Your task to perform on an android device: Open Youtube and go to the subscriptions tab Image 0: 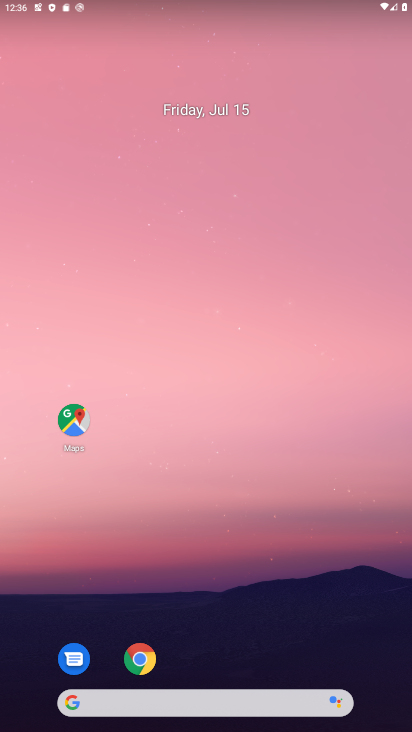
Step 0: drag from (185, 655) to (187, 256)
Your task to perform on an android device: Open Youtube and go to the subscriptions tab Image 1: 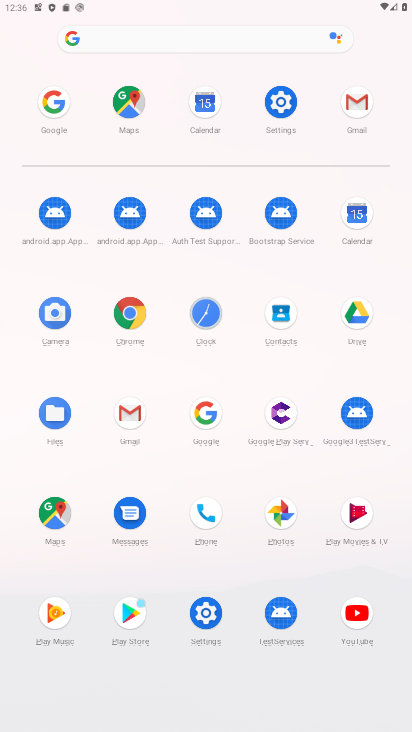
Step 1: click (353, 605)
Your task to perform on an android device: Open Youtube and go to the subscriptions tab Image 2: 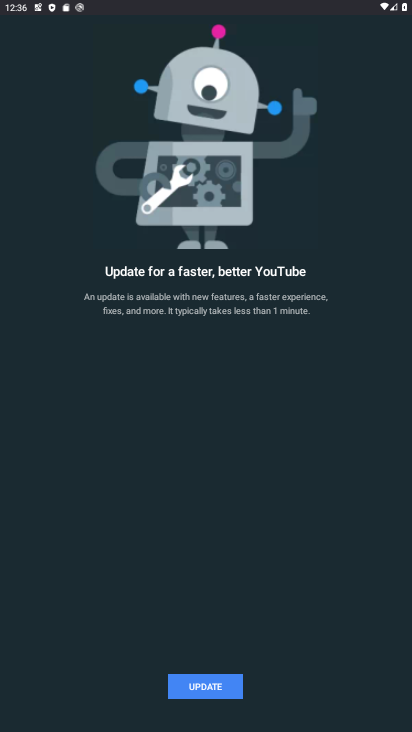
Step 2: click (217, 692)
Your task to perform on an android device: Open Youtube and go to the subscriptions tab Image 3: 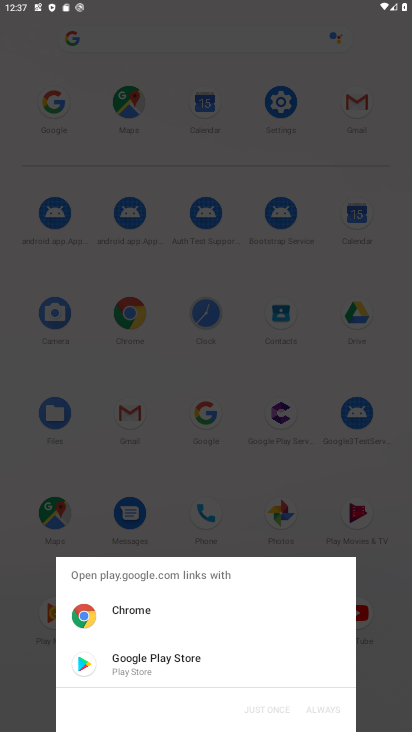
Step 3: click (149, 669)
Your task to perform on an android device: Open Youtube and go to the subscriptions tab Image 4: 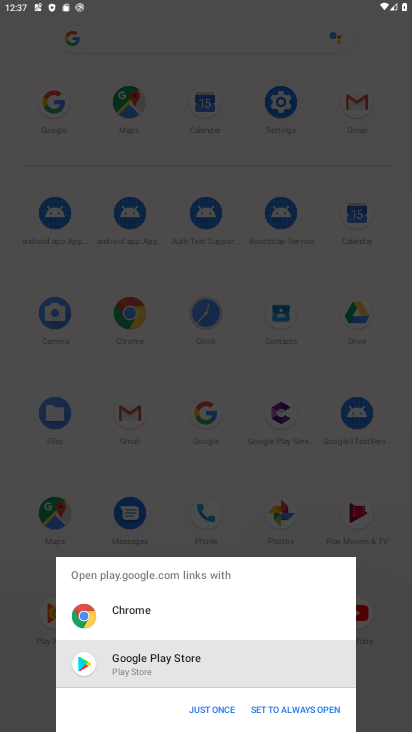
Step 4: click (195, 703)
Your task to perform on an android device: Open Youtube and go to the subscriptions tab Image 5: 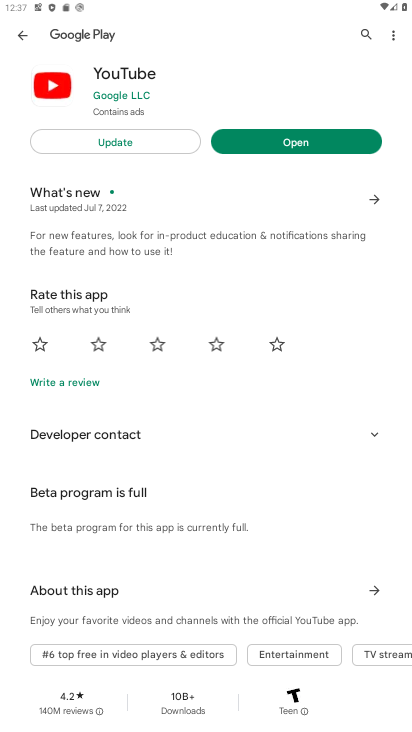
Step 5: click (179, 141)
Your task to perform on an android device: Open Youtube and go to the subscriptions tab Image 6: 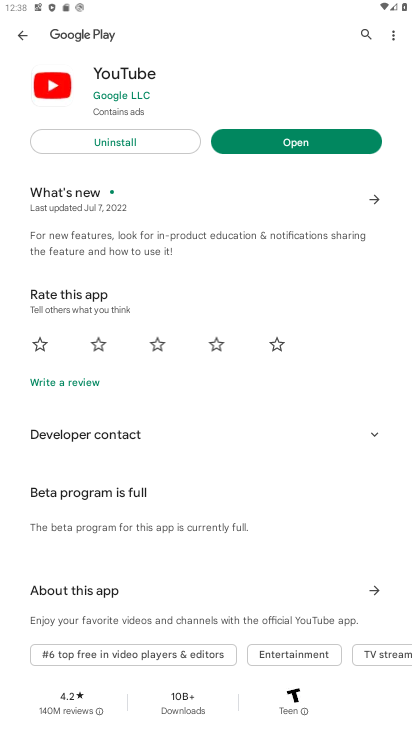
Step 6: click (344, 133)
Your task to perform on an android device: Open Youtube and go to the subscriptions tab Image 7: 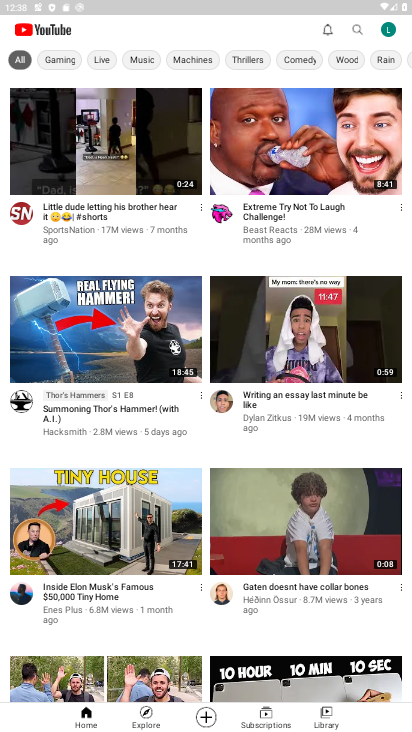
Step 7: click (271, 711)
Your task to perform on an android device: Open Youtube and go to the subscriptions tab Image 8: 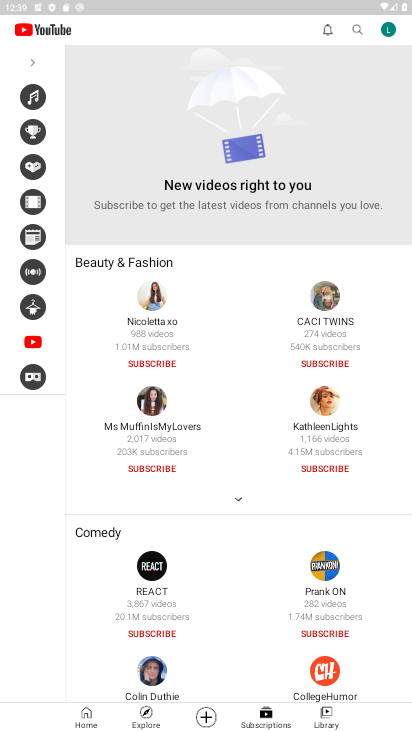
Step 8: task complete